Your task to perform on an android device: toggle notification dots Image 0: 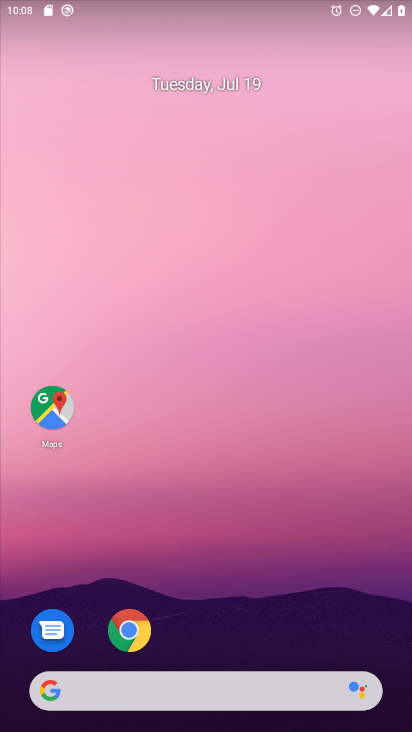
Step 0: drag from (181, 670) to (124, 315)
Your task to perform on an android device: toggle notification dots Image 1: 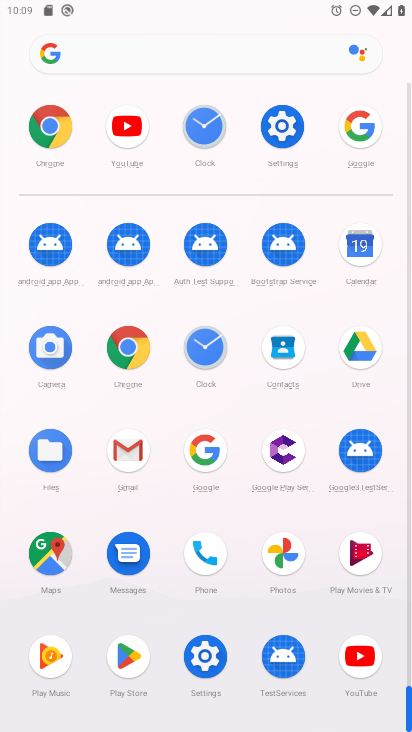
Step 1: click (275, 125)
Your task to perform on an android device: toggle notification dots Image 2: 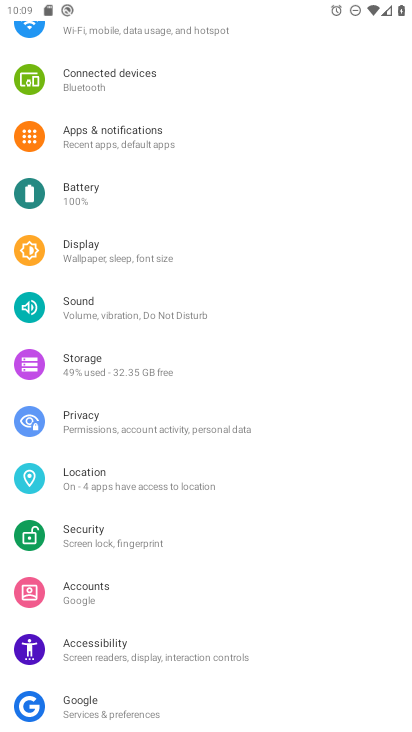
Step 2: click (177, 149)
Your task to perform on an android device: toggle notification dots Image 3: 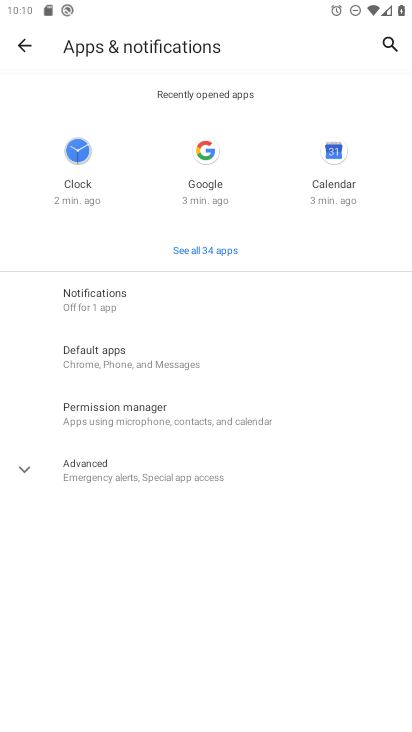
Step 3: click (135, 296)
Your task to perform on an android device: toggle notification dots Image 4: 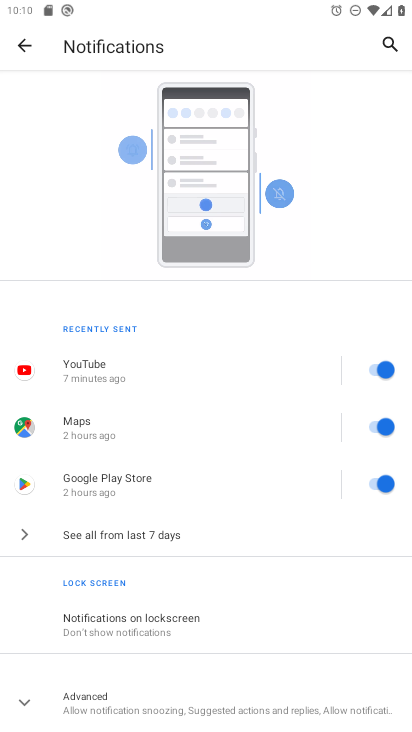
Step 4: drag from (231, 555) to (235, 43)
Your task to perform on an android device: toggle notification dots Image 5: 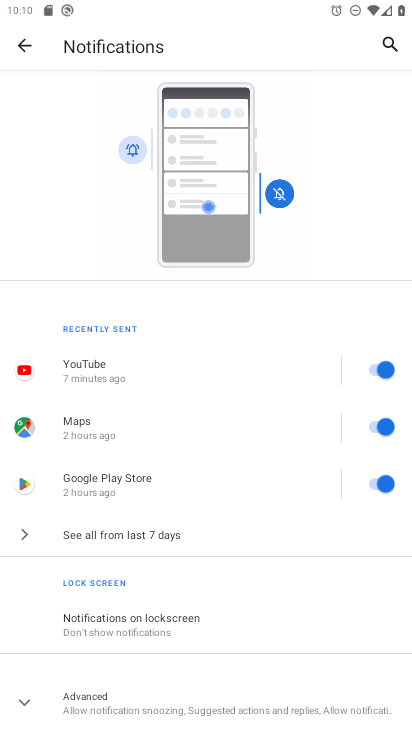
Step 5: drag from (204, 564) to (191, 256)
Your task to perform on an android device: toggle notification dots Image 6: 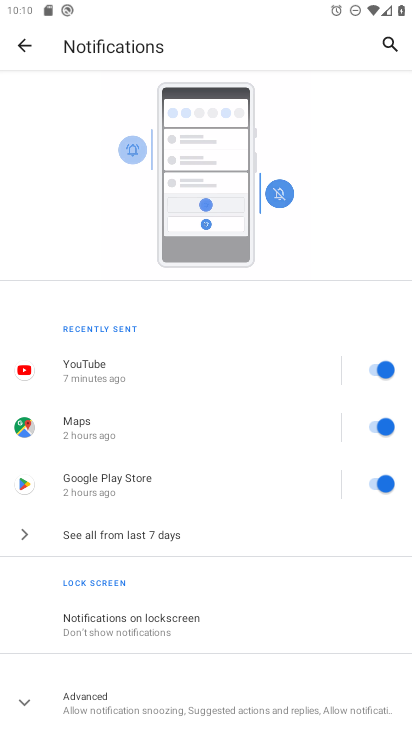
Step 6: drag from (231, 604) to (179, 305)
Your task to perform on an android device: toggle notification dots Image 7: 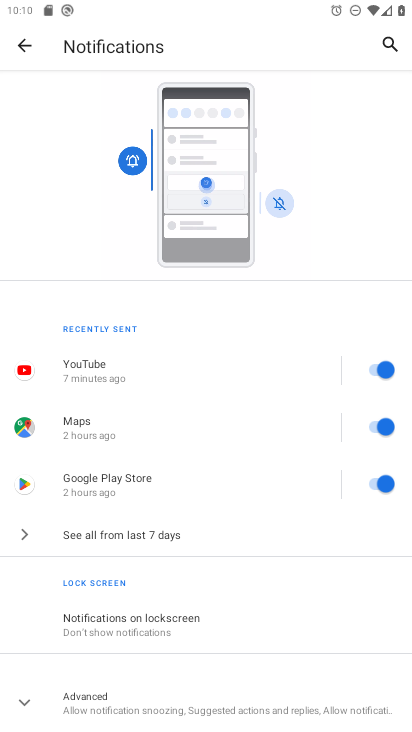
Step 7: click (93, 698)
Your task to perform on an android device: toggle notification dots Image 8: 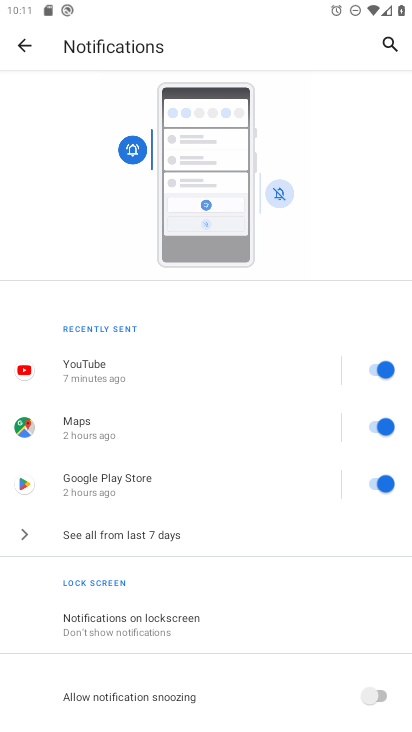
Step 8: drag from (143, 572) to (174, 283)
Your task to perform on an android device: toggle notification dots Image 9: 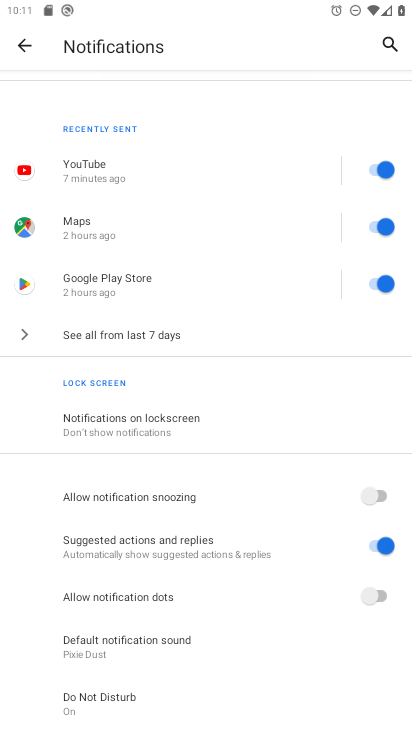
Step 9: click (359, 602)
Your task to perform on an android device: toggle notification dots Image 10: 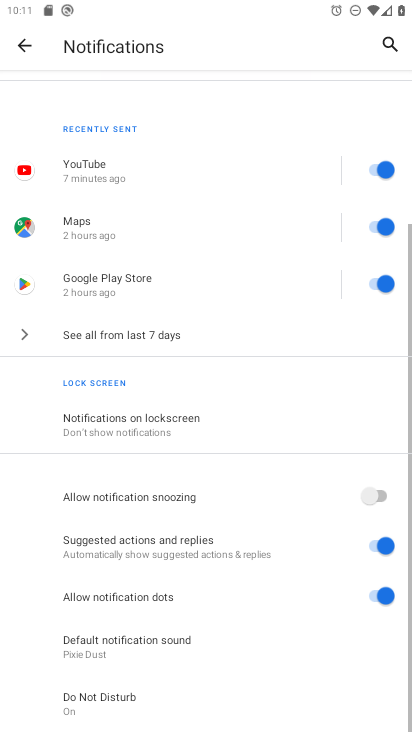
Step 10: task complete